Your task to perform on an android device: see sites visited before in the chrome app Image 0: 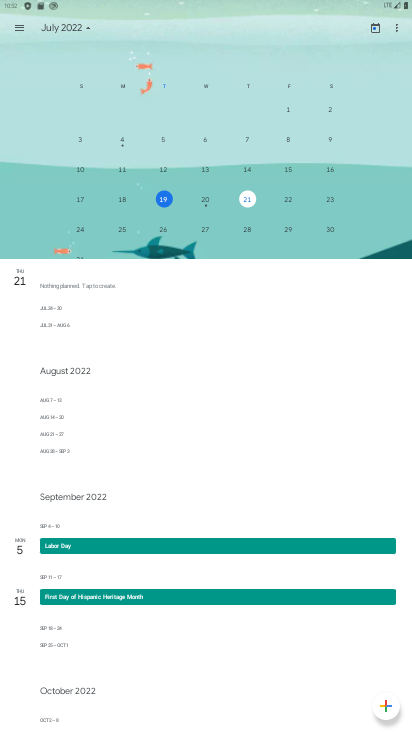
Step 0: press home button
Your task to perform on an android device: see sites visited before in the chrome app Image 1: 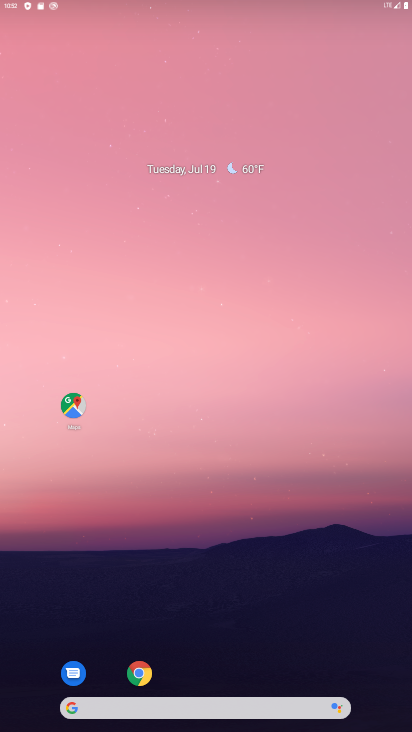
Step 1: drag from (218, 653) to (284, 9)
Your task to perform on an android device: see sites visited before in the chrome app Image 2: 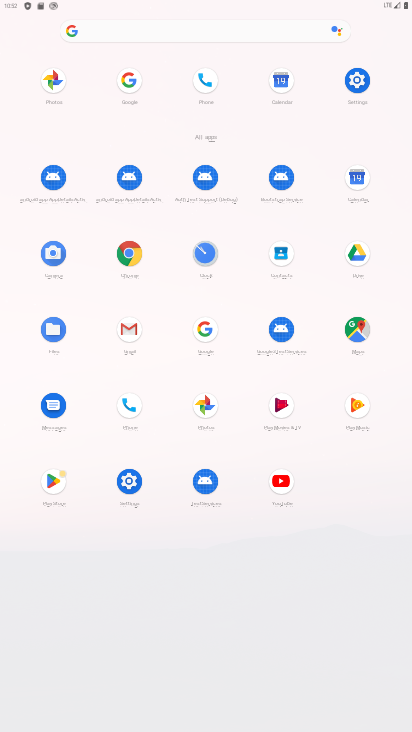
Step 2: click (131, 253)
Your task to perform on an android device: see sites visited before in the chrome app Image 3: 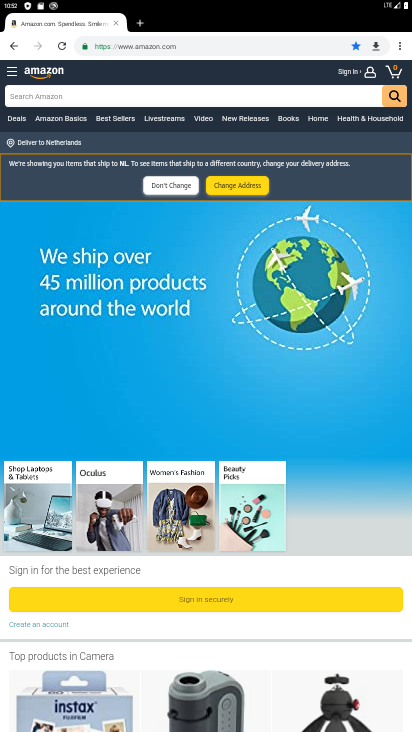
Step 3: click (397, 43)
Your task to perform on an android device: see sites visited before in the chrome app Image 4: 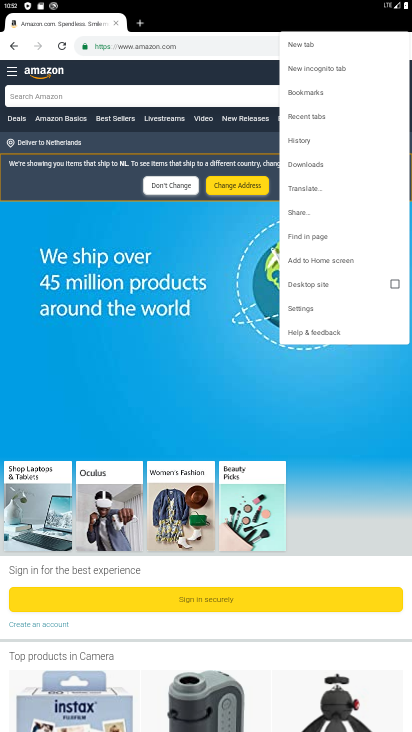
Step 4: click (302, 140)
Your task to perform on an android device: see sites visited before in the chrome app Image 5: 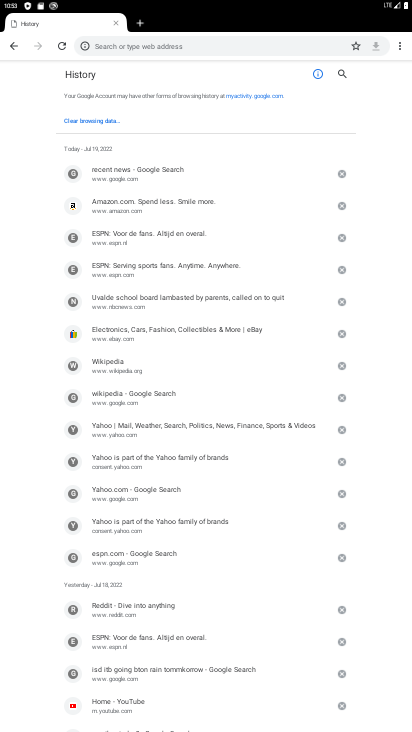
Step 5: task complete